Your task to perform on an android device: Go to ESPN.com Image 0: 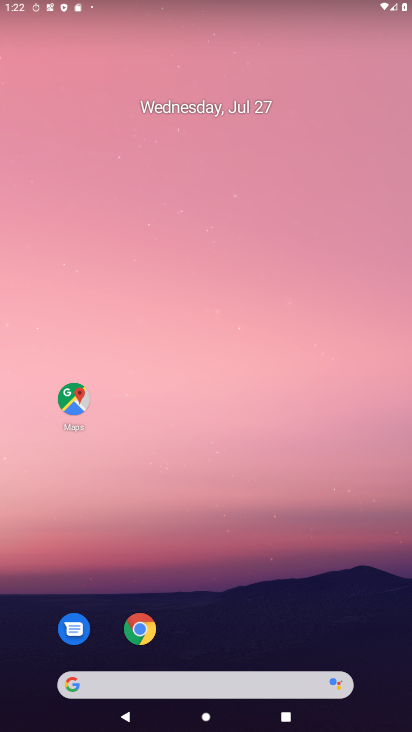
Step 0: drag from (353, 647) to (224, 85)
Your task to perform on an android device: Go to ESPN.com Image 1: 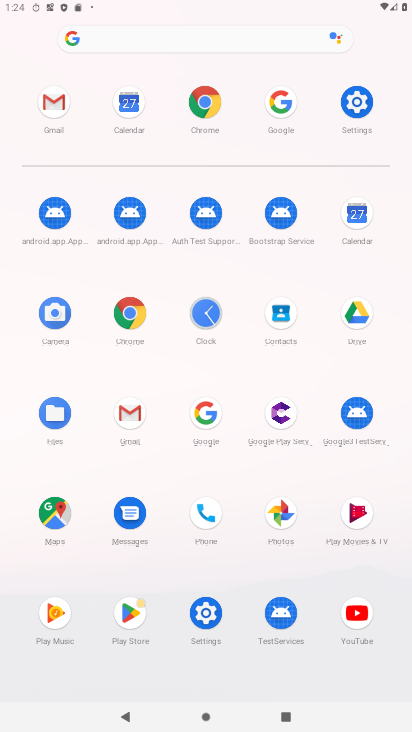
Step 1: click (204, 424)
Your task to perform on an android device: Go to ESPN.com Image 2: 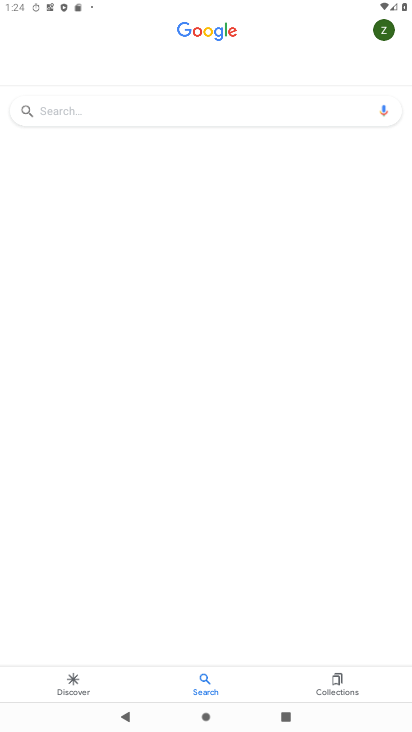
Step 2: click (96, 115)
Your task to perform on an android device: Go to ESPN.com Image 3: 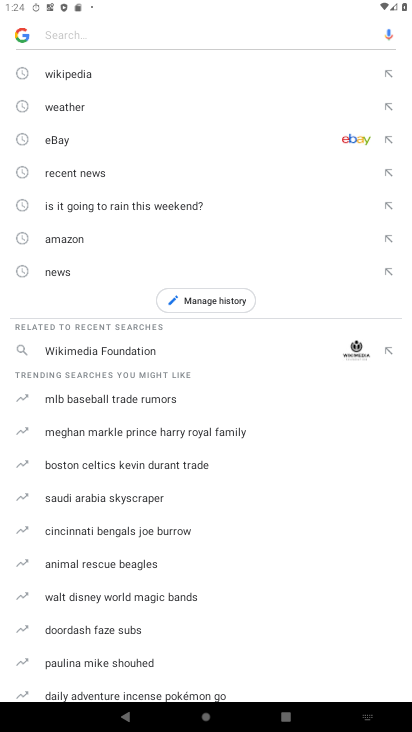
Step 3: type "ESPN.com"
Your task to perform on an android device: Go to ESPN.com Image 4: 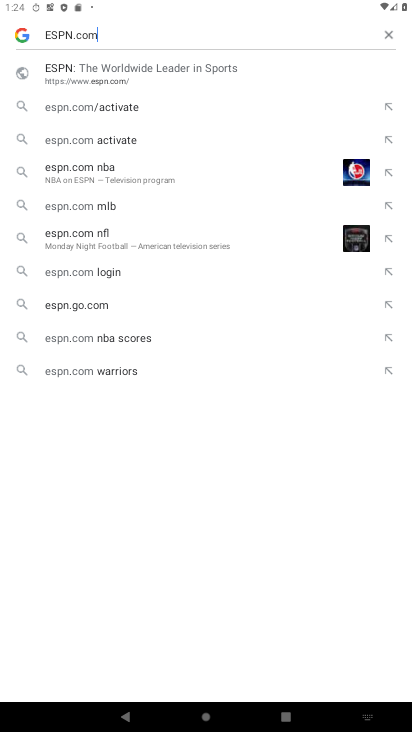
Step 4: click (99, 67)
Your task to perform on an android device: Go to ESPN.com Image 5: 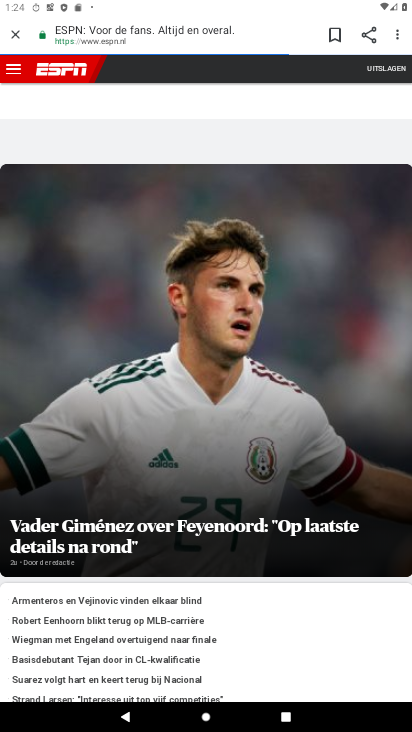
Step 5: task complete